Your task to perform on an android device: Go to Google Image 0: 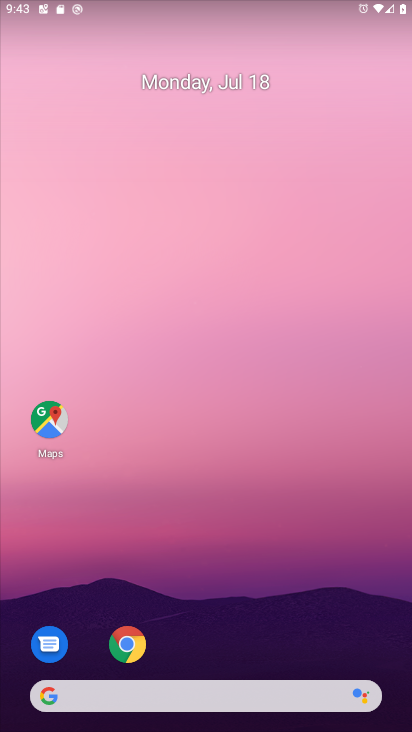
Step 0: click (189, 684)
Your task to perform on an android device: Go to Google Image 1: 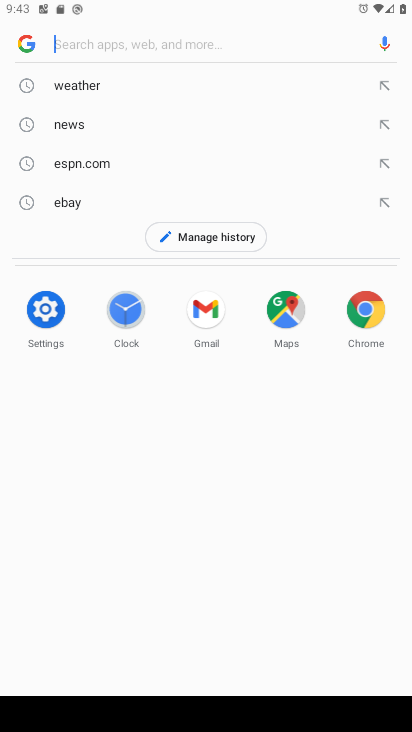
Step 1: type "google.com"
Your task to perform on an android device: Go to Google Image 2: 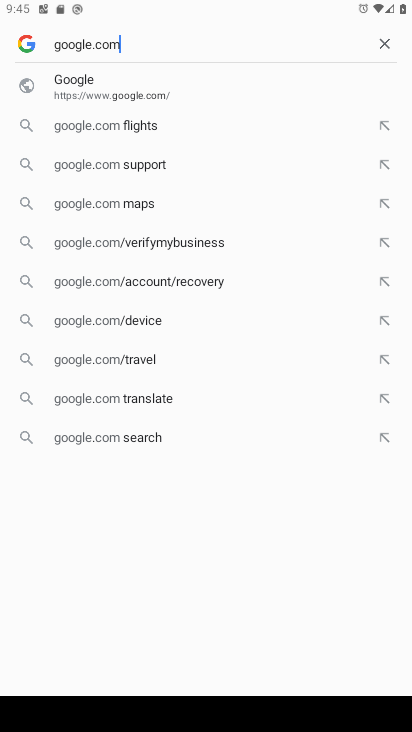
Step 2: click (130, 103)
Your task to perform on an android device: Go to Google Image 3: 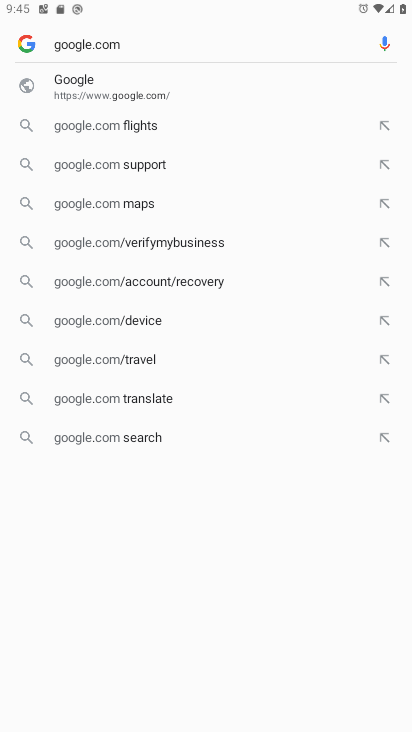
Step 3: task complete